Your task to perform on an android device: What is the news today? Image 0: 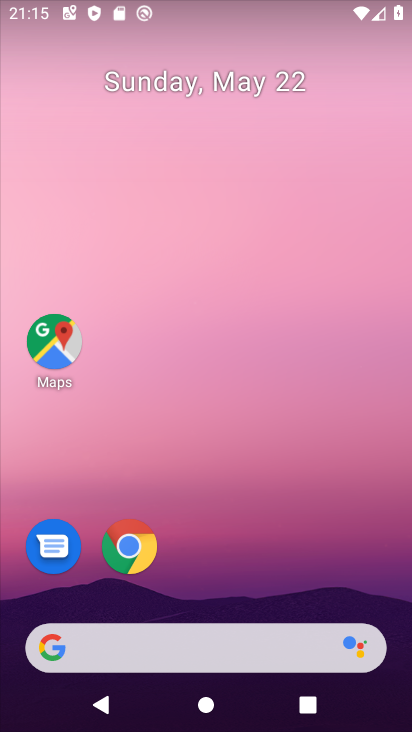
Step 0: click (280, 85)
Your task to perform on an android device: What is the news today? Image 1: 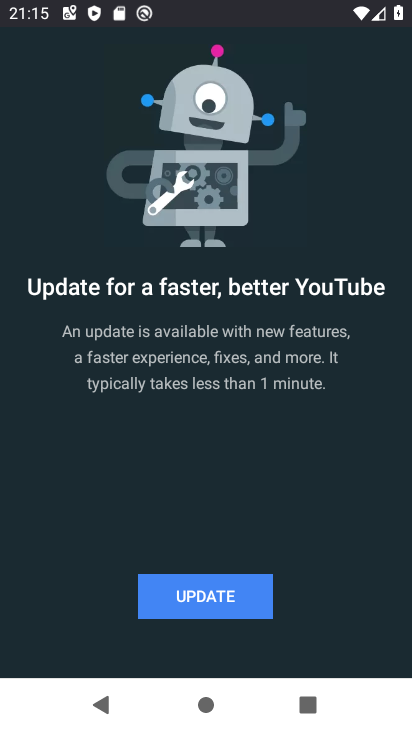
Step 1: press home button
Your task to perform on an android device: What is the news today? Image 2: 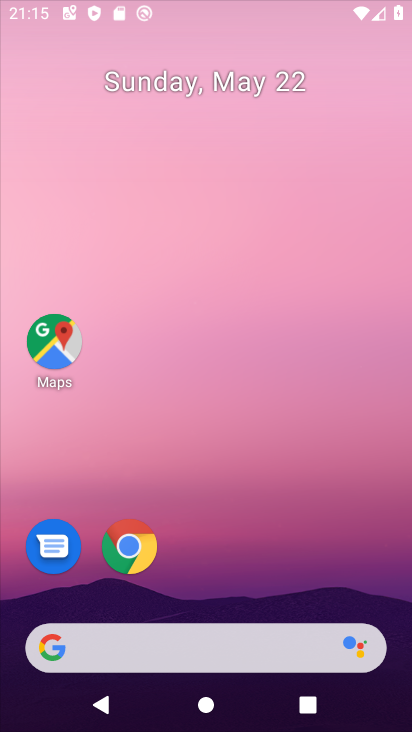
Step 2: drag from (213, 524) to (257, 154)
Your task to perform on an android device: What is the news today? Image 3: 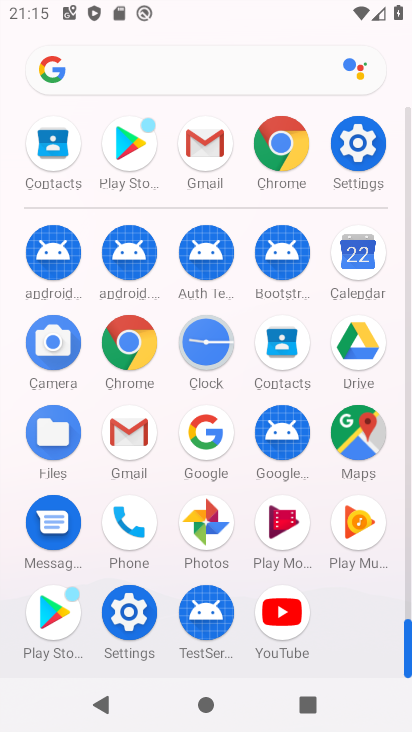
Step 3: click (225, 78)
Your task to perform on an android device: What is the news today? Image 4: 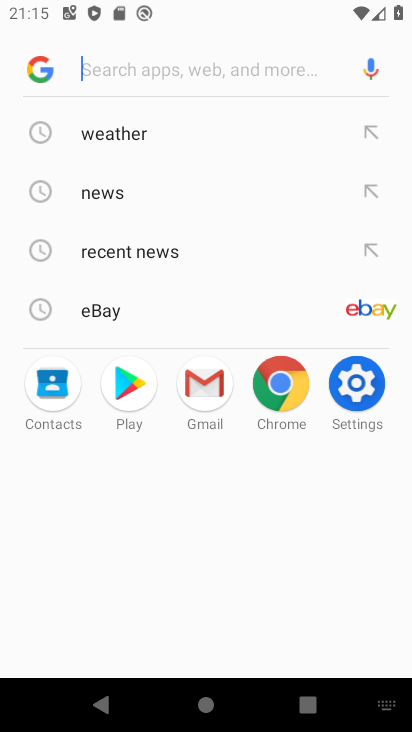
Step 4: type "news today"
Your task to perform on an android device: What is the news today? Image 5: 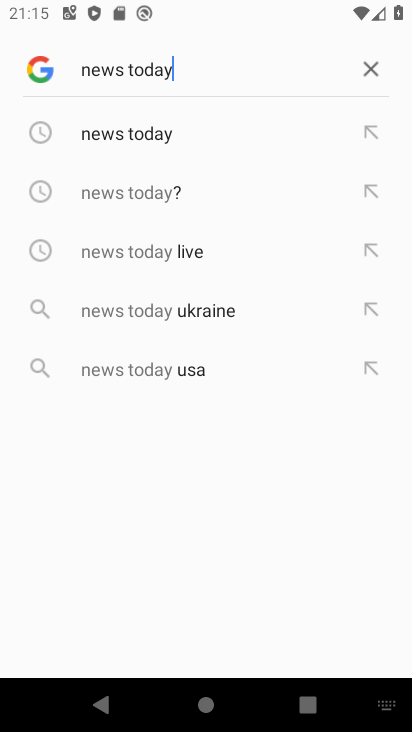
Step 5: click (138, 184)
Your task to perform on an android device: What is the news today? Image 6: 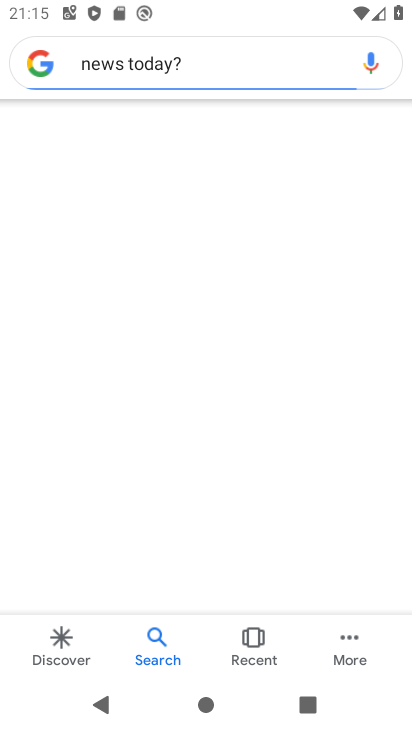
Step 6: task complete